Your task to perform on an android device: install app "Spotify: Music and Podcasts" Image 0: 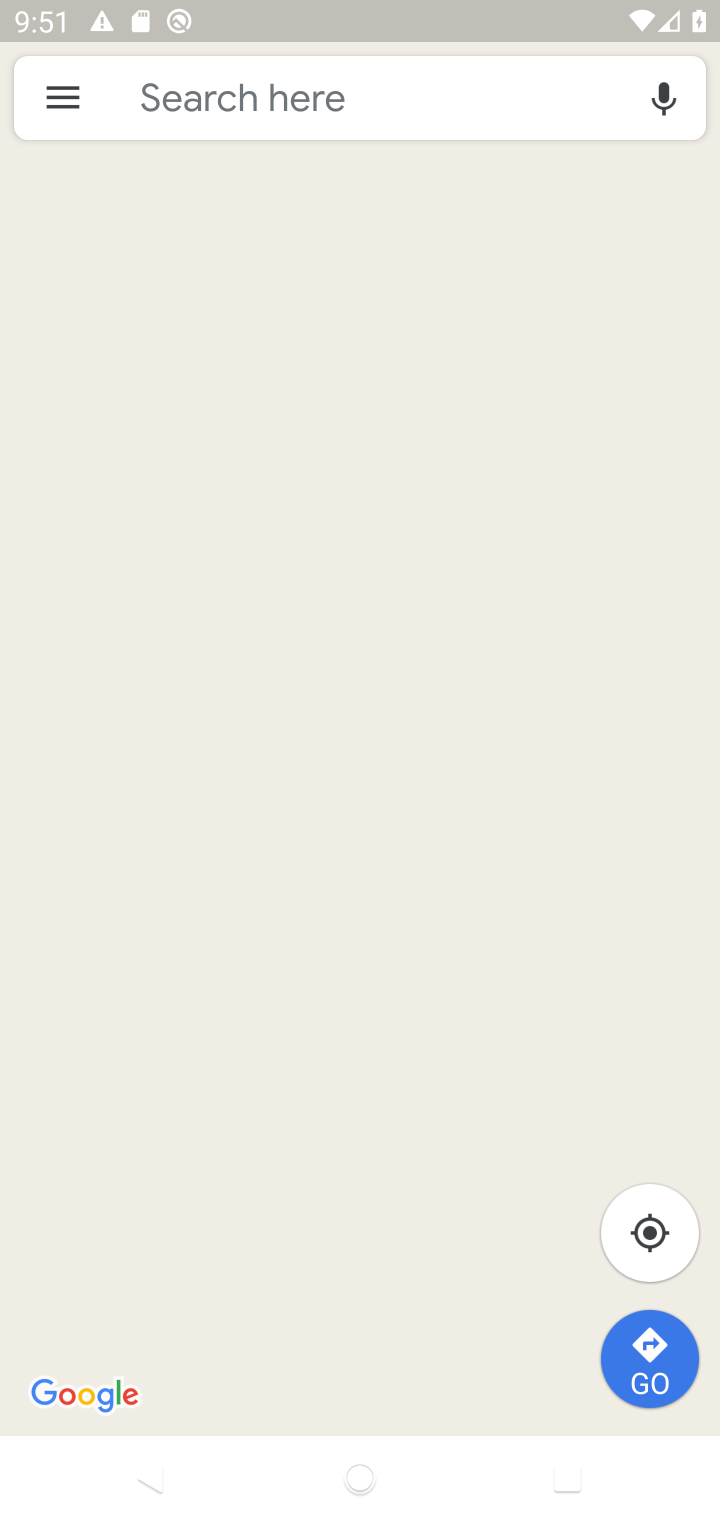
Step 0: press home button
Your task to perform on an android device: install app "Spotify: Music and Podcasts" Image 1: 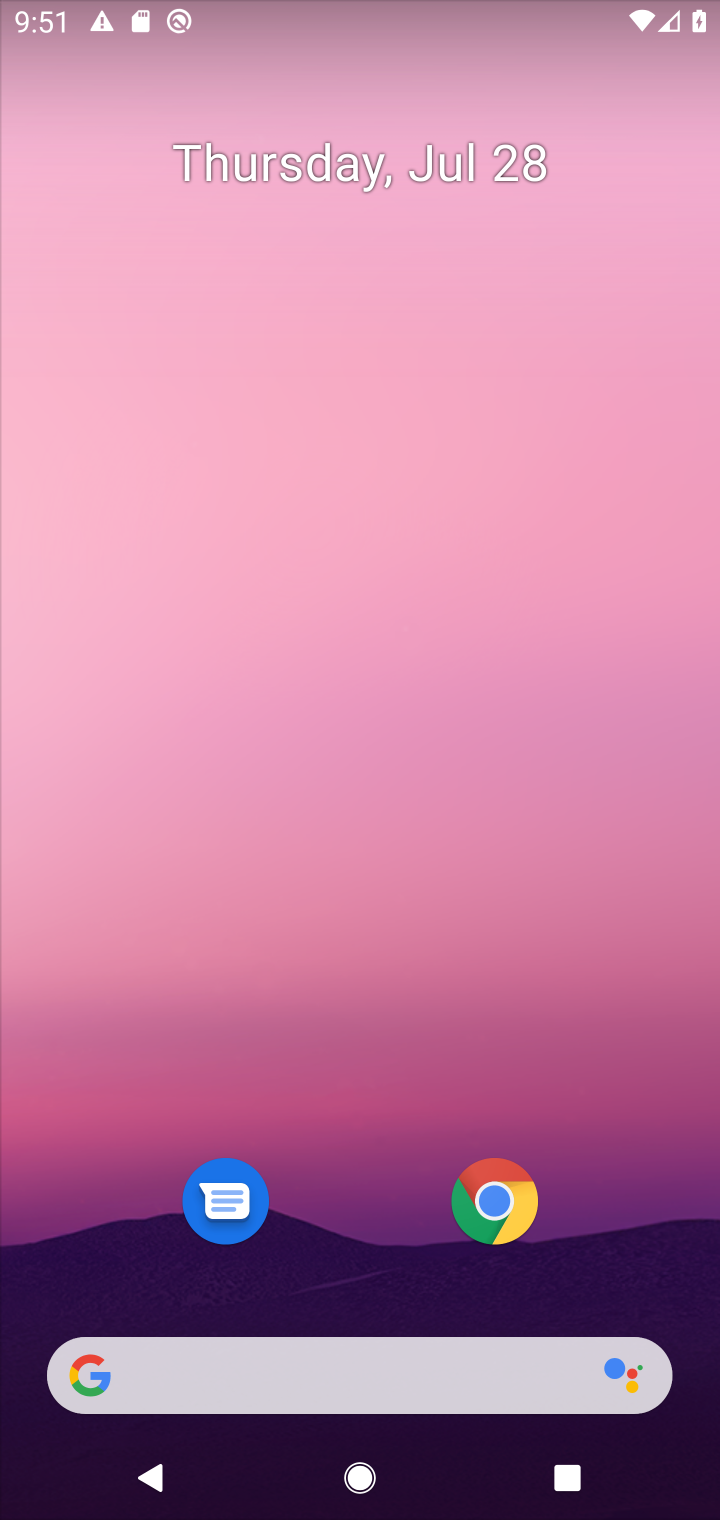
Step 1: drag from (330, 924) to (306, 5)
Your task to perform on an android device: install app "Spotify: Music and Podcasts" Image 2: 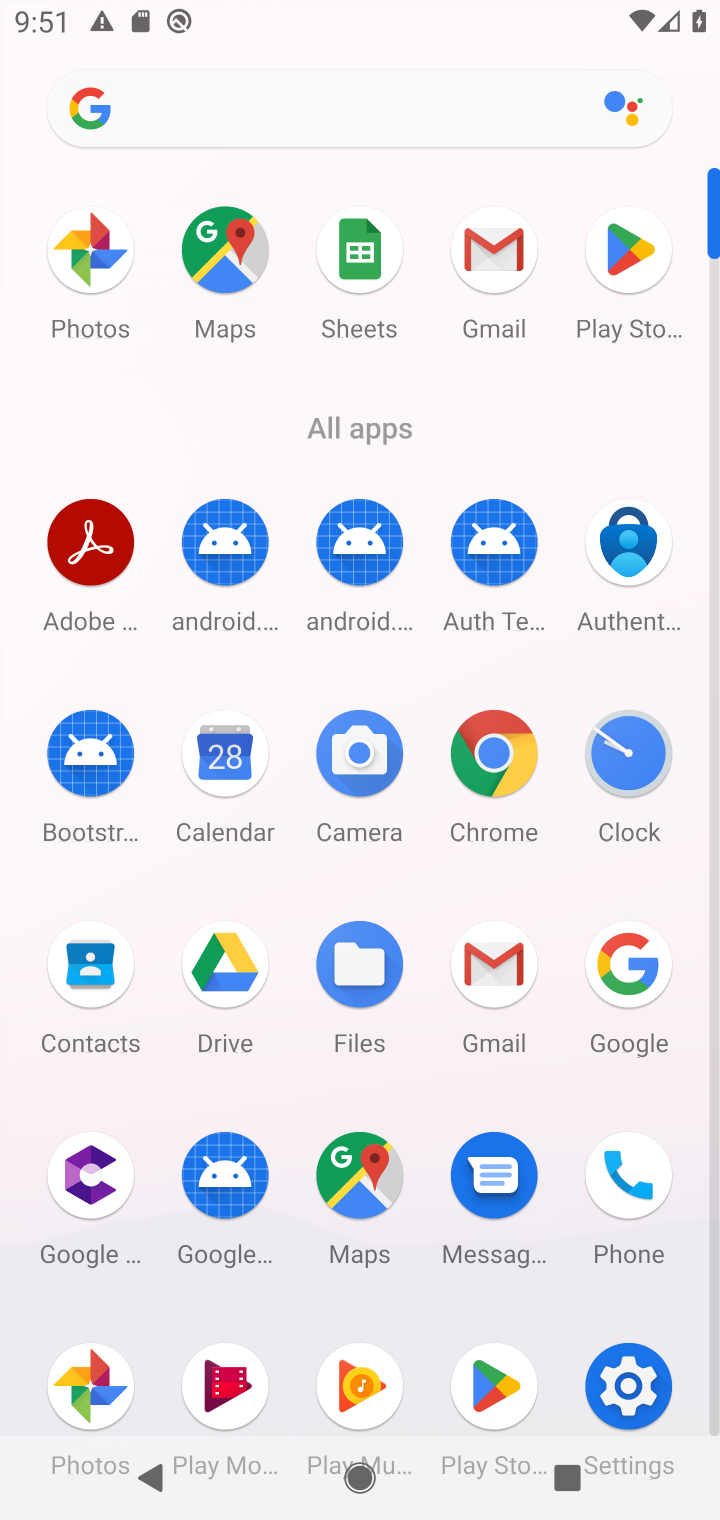
Step 2: click (631, 313)
Your task to perform on an android device: install app "Spotify: Music and Podcasts" Image 3: 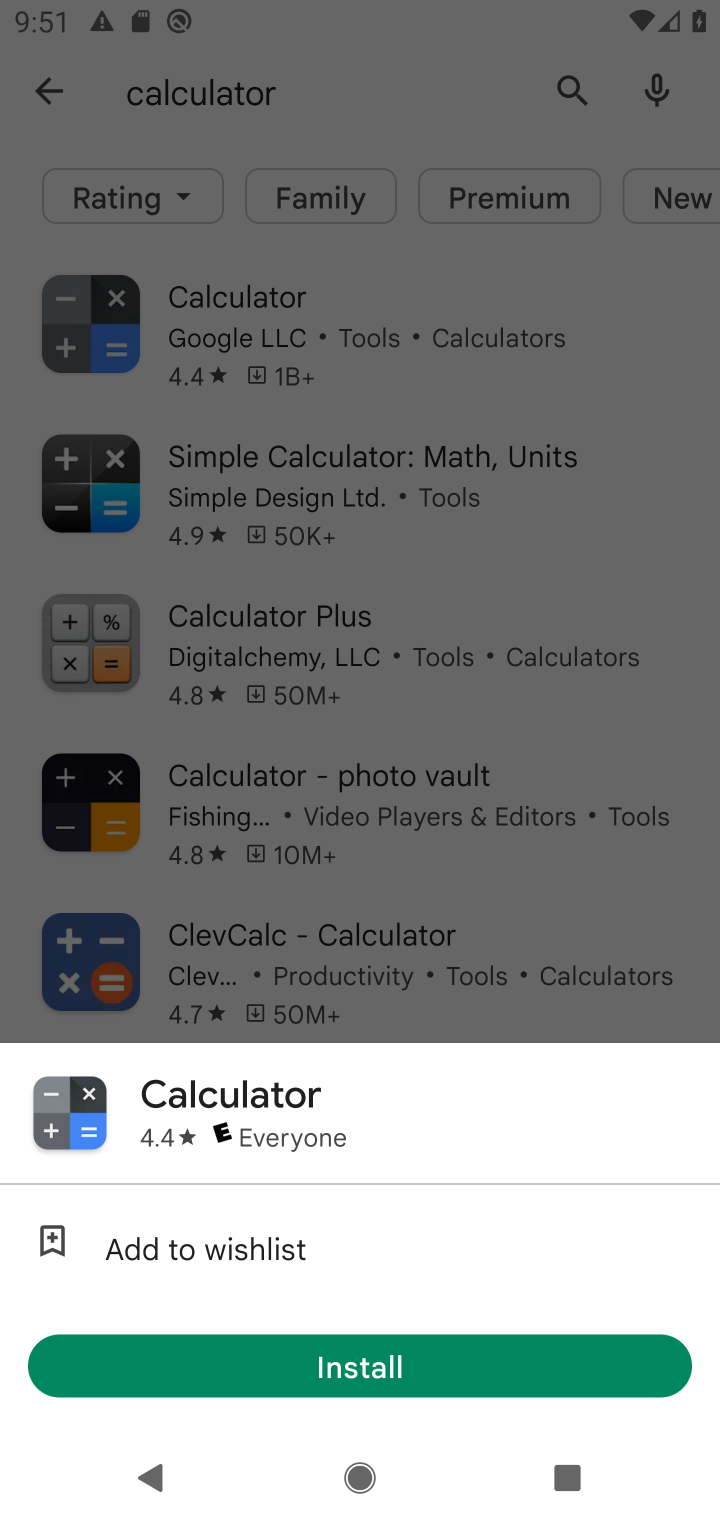
Step 3: click (58, 87)
Your task to perform on an android device: install app "Spotify: Music and Podcasts" Image 4: 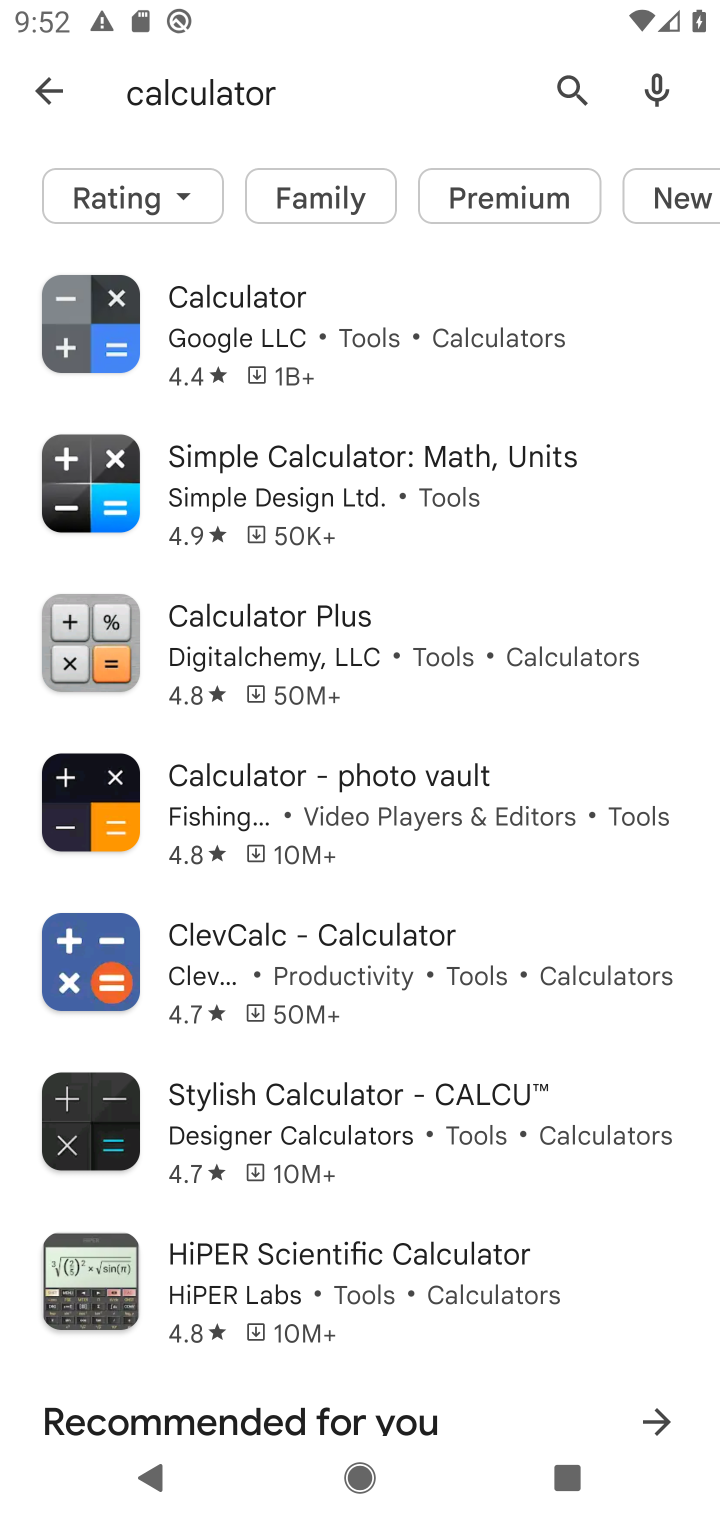
Step 4: click (291, 100)
Your task to perform on an android device: install app "Spotify: Music and Podcasts" Image 5: 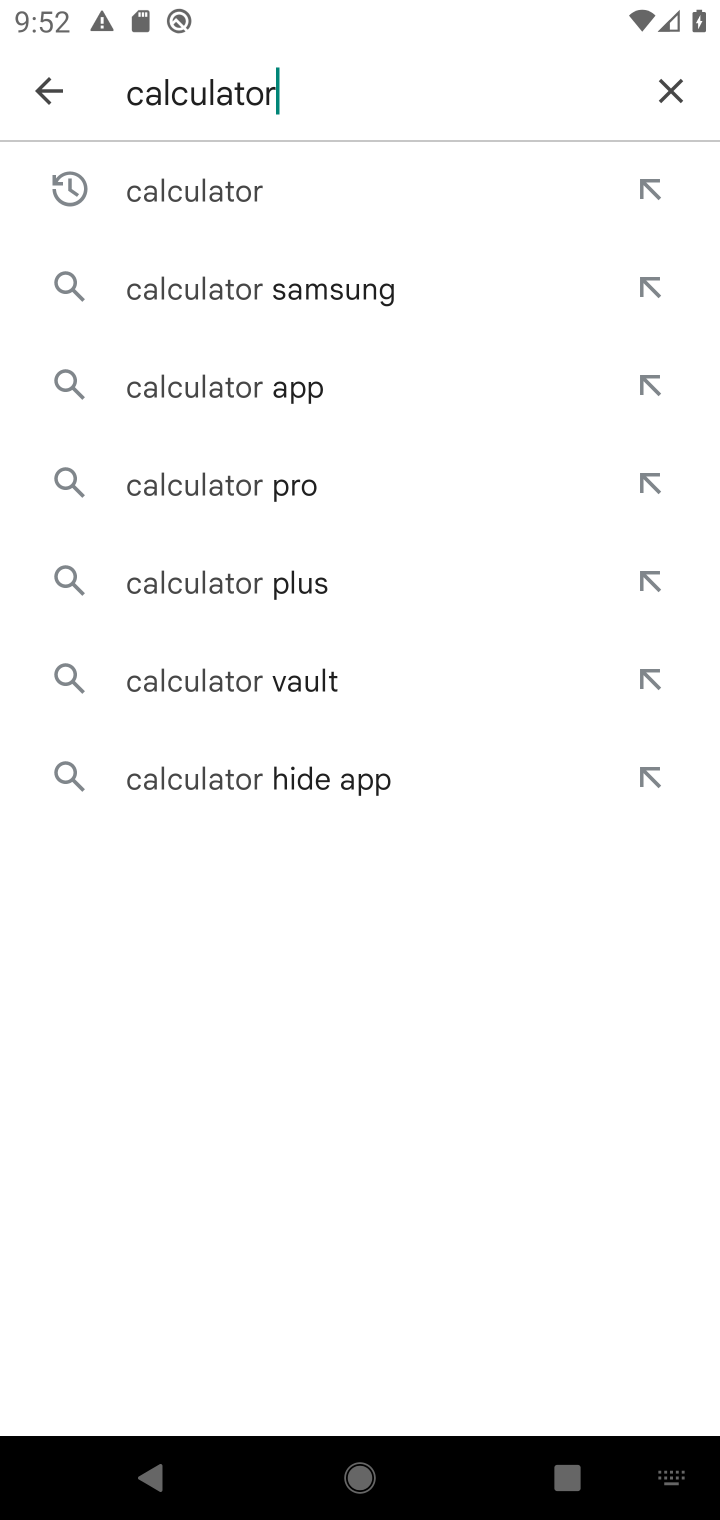
Step 5: click (680, 101)
Your task to perform on an android device: install app "Spotify: Music and Podcasts" Image 6: 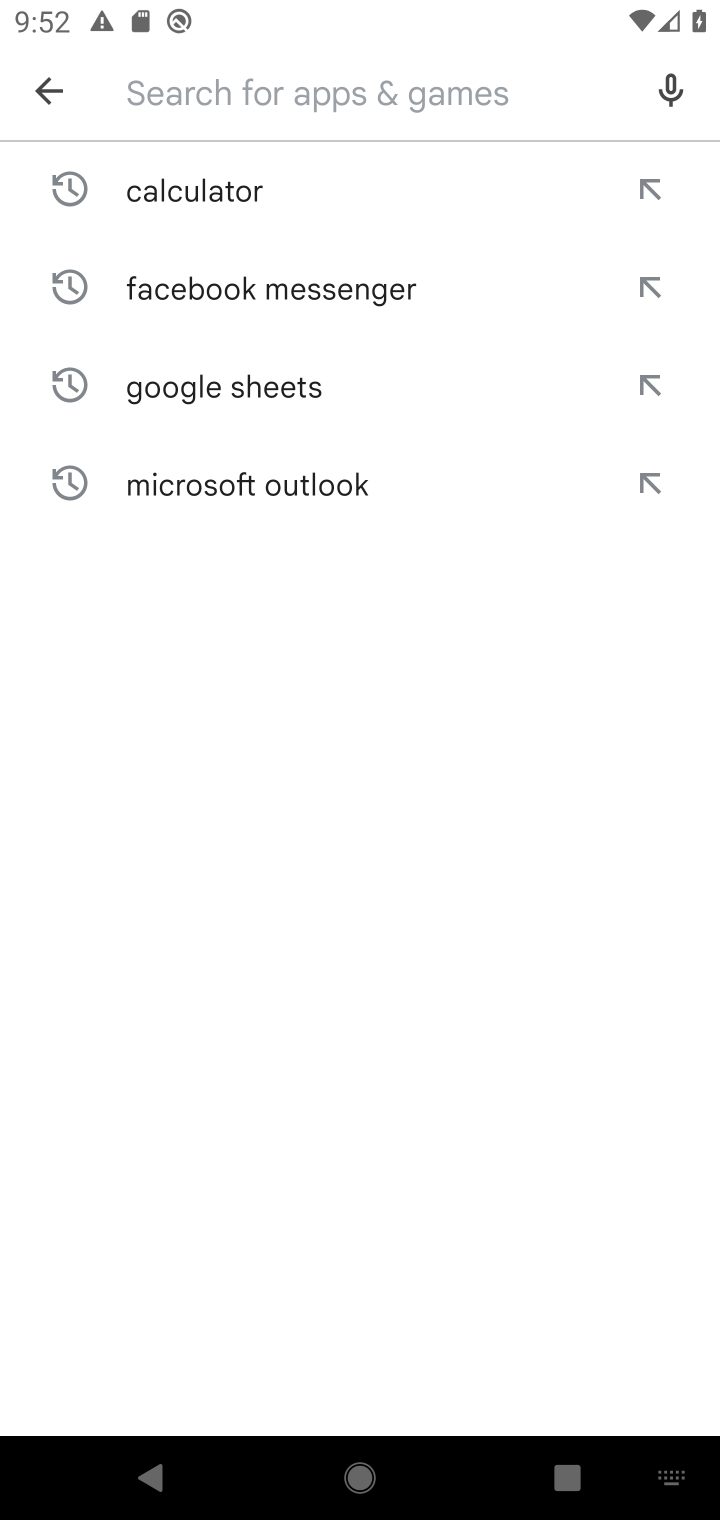
Step 6: type "Spotify"
Your task to perform on an android device: install app "Spotify: Music and Podcasts" Image 7: 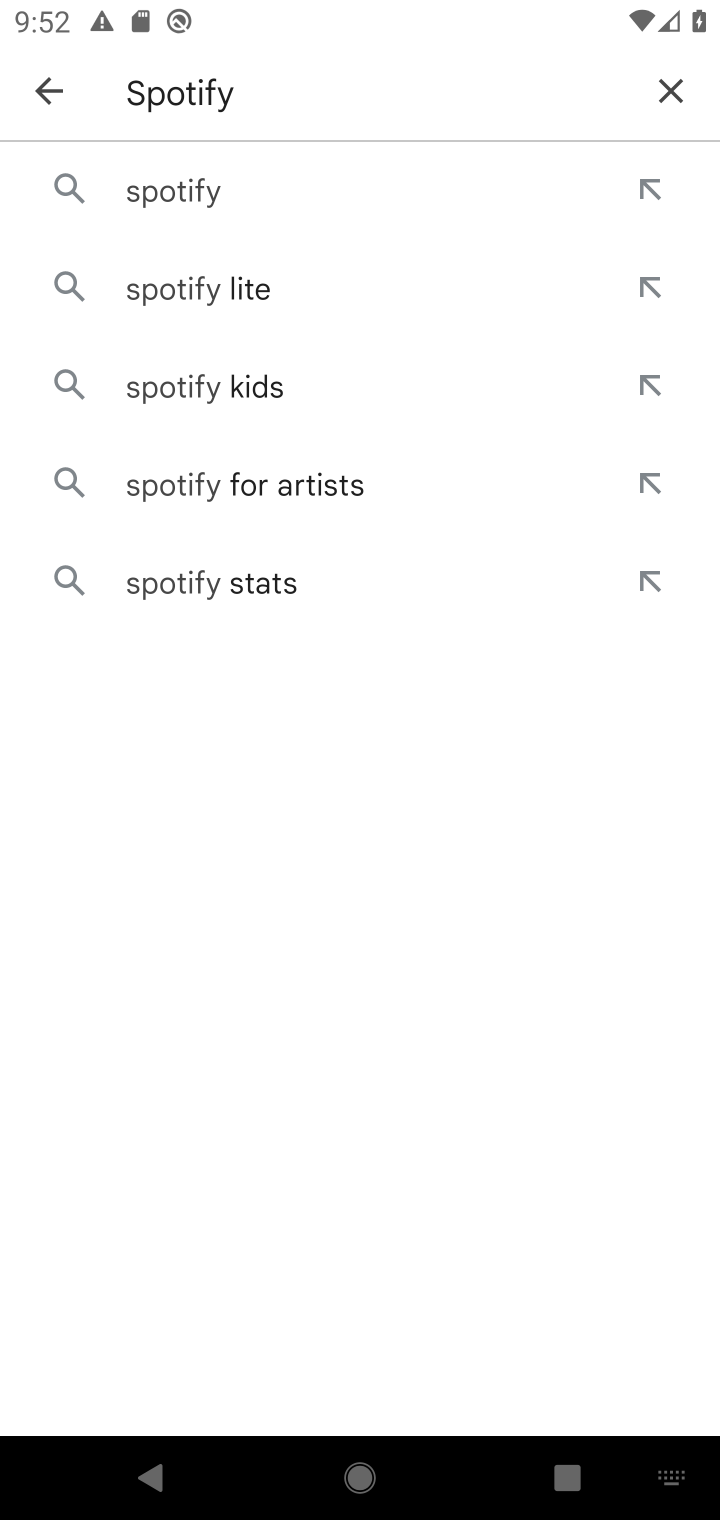
Step 7: click (261, 211)
Your task to perform on an android device: install app "Spotify: Music and Podcasts" Image 8: 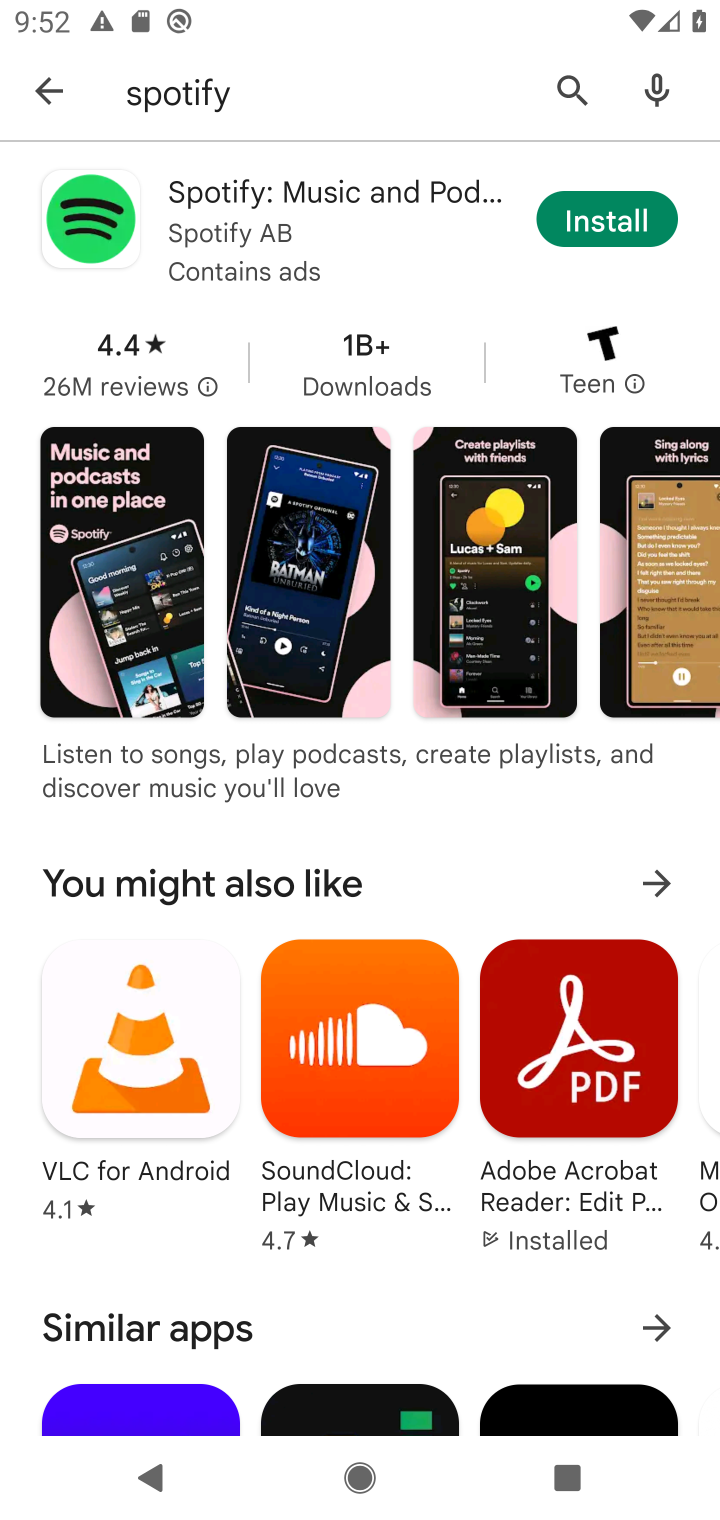
Step 8: click (632, 216)
Your task to perform on an android device: install app "Spotify: Music and Podcasts" Image 9: 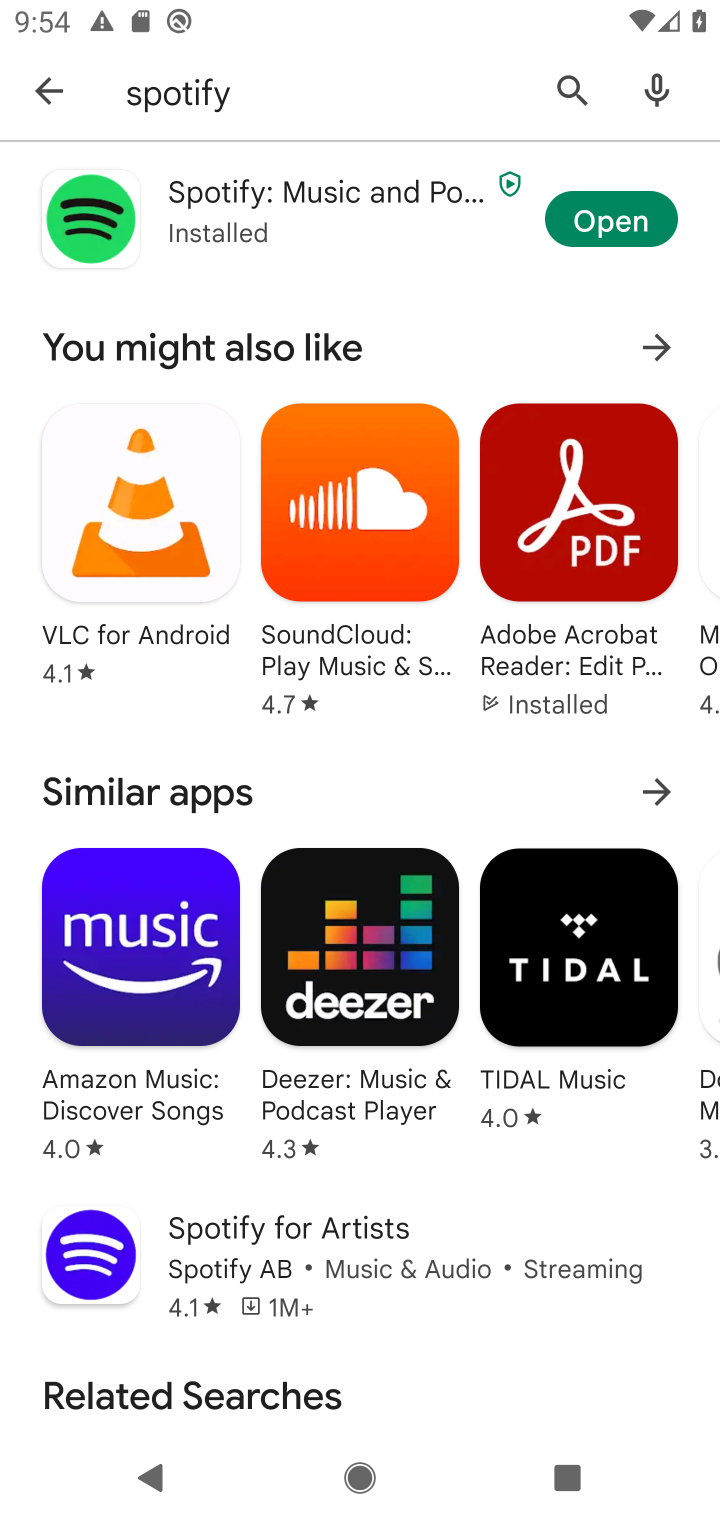
Step 9: task complete